Your task to perform on an android device: Show me the alarms in the clock app Image 0: 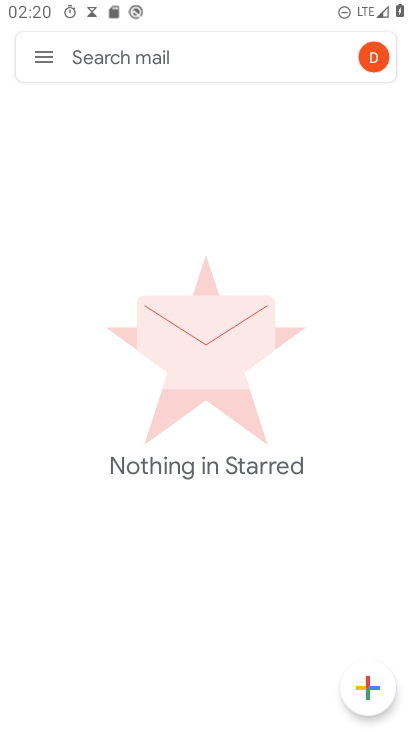
Step 0: press home button
Your task to perform on an android device: Show me the alarms in the clock app Image 1: 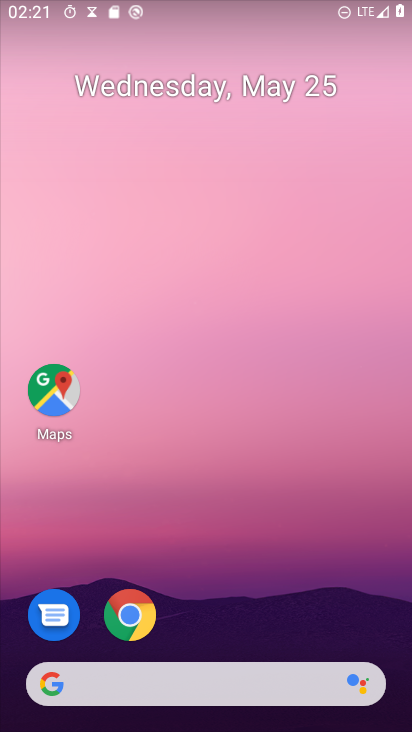
Step 1: drag from (192, 719) to (151, 61)
Your task to perform on an android device: Show me the alarms in the clock app Image 2: 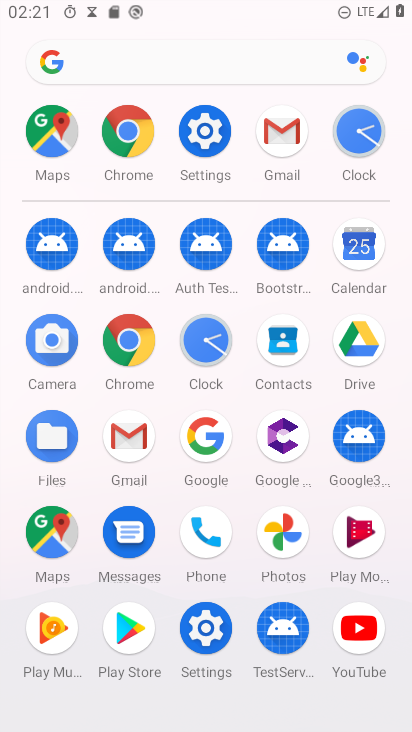
Step 2: click (202, 341)
Your task to perform on an android device: Show me the alarms in the clock app Image 3: 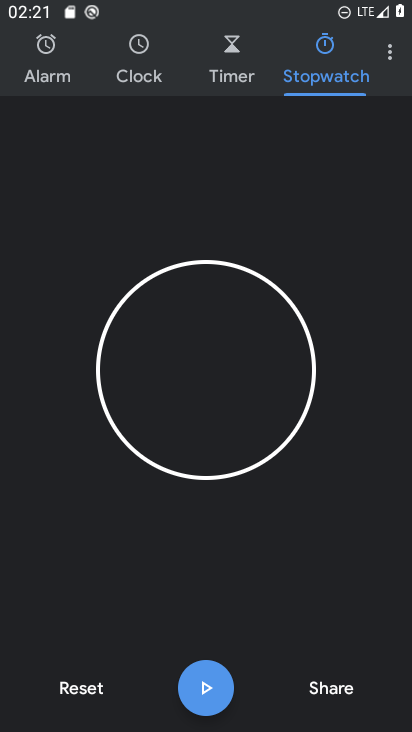
Step 3: click (52, 75)
Your task to perform on an android device: Show me the alarms in the clock app Image 4: 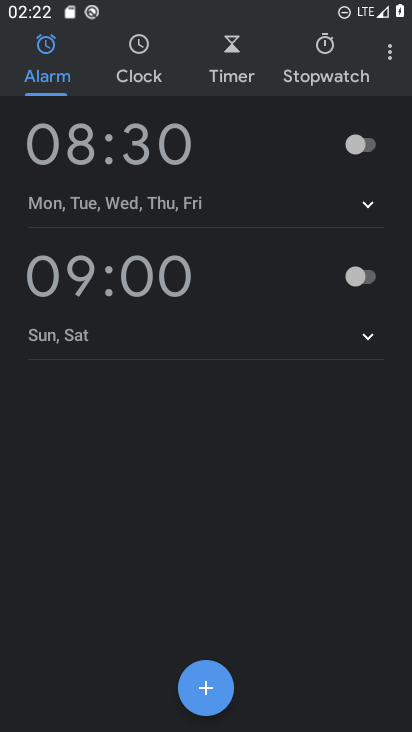
Step 4: task complete